Your task to perform on an android device: read, delete, or share a saved page in the chrome app Image 0: 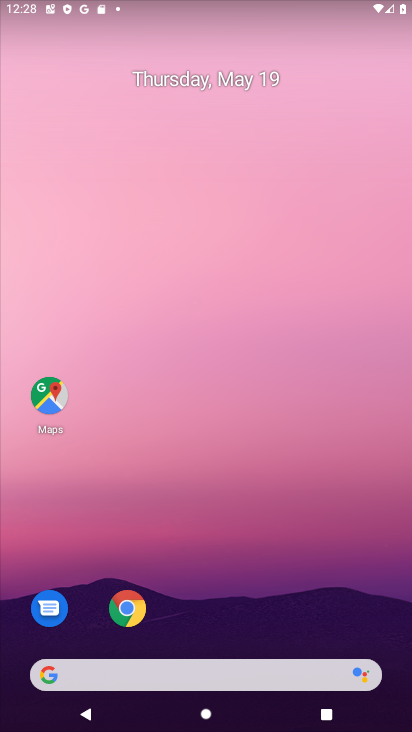
Step 0: drag from (250, 603) to (254, 268)
Your task to perform on an android device: read, delete, or share a saved page in the chrome app Image 1: 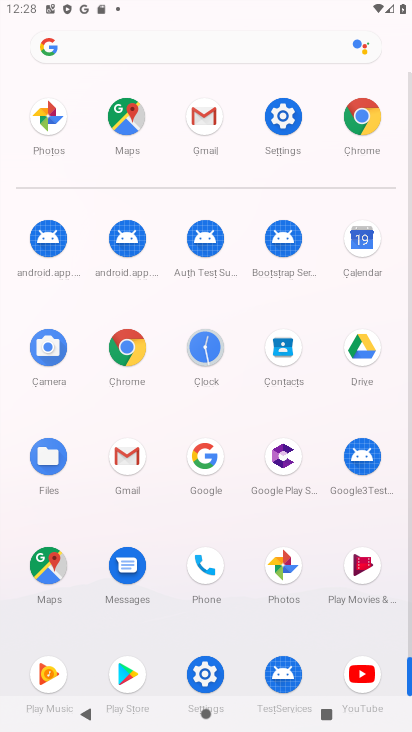
Step 1: click (356, 123)
Your task to perform on an android device: read, delete, or share a saved page in the chrome app Image 2: 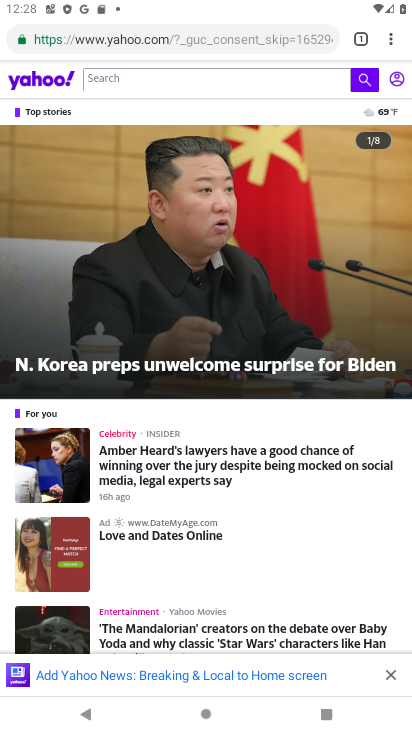
Step 2: click (395, 33)
Your task to perform on an android device: read, delete, or share a saved page in the chrome app Image 3: 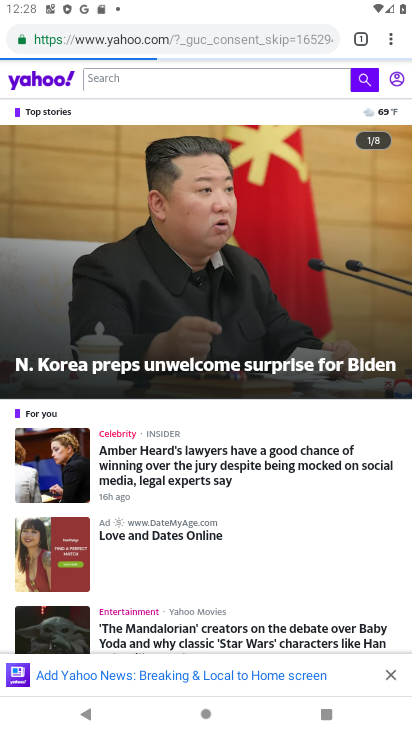
Step 3: click (388, 44)
Your task to perform on an android device: read, delete, or share a saved page in the chrome app Image 4: 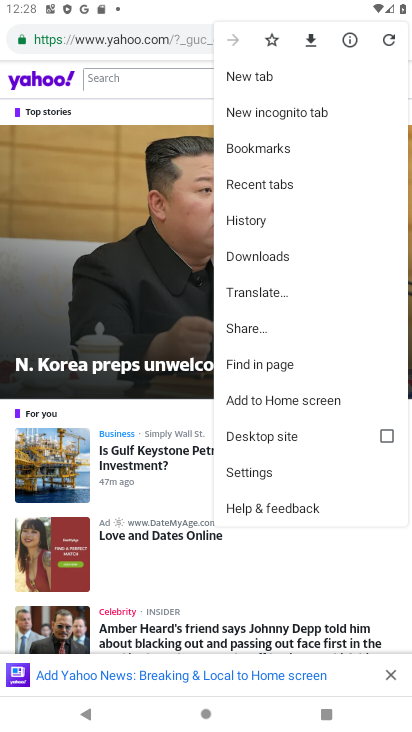
Step 4: click (264, 252)
Your task to perform on an android device: read, delete, or share a saved page in the chrome app Image 5: 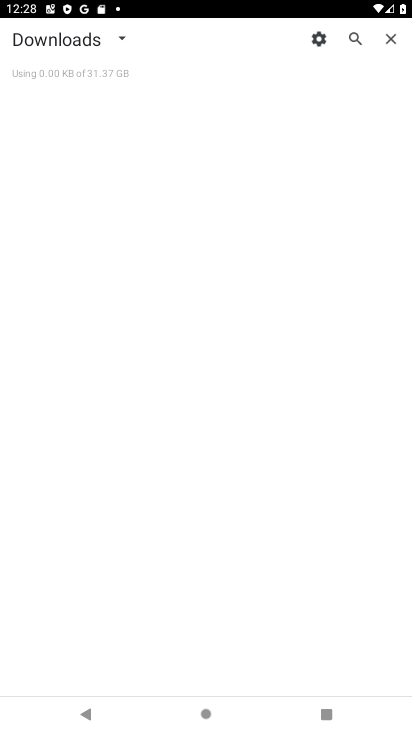
Step 5: click (122, 34)
Your task to perform on an android device: read, delete, or share a saved page in the chrome app Image 6: 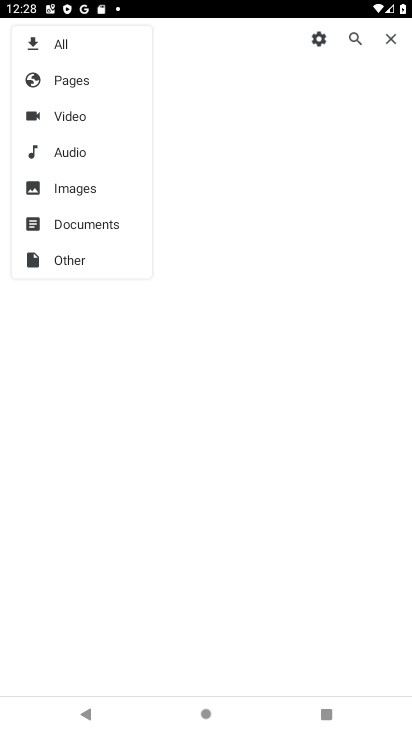
Step 6: click (66, 76)
Your task to perform on an android device: read, delete, or share a saved page in the chrome app Image 7: 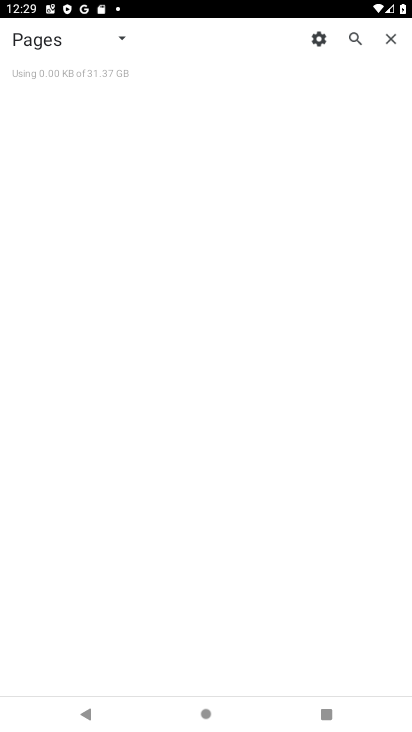
Step 7: task complete